Your task to perform on an android device: Show me recent news Image 0: 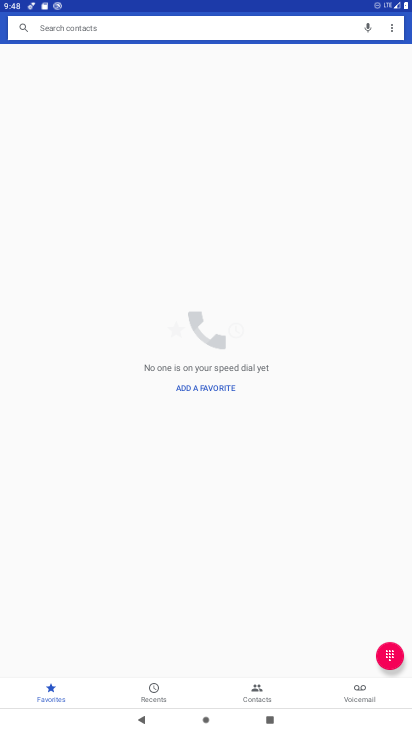
Step 0: press home button
Your task to perform on an android device: Show me recent news Image 1: 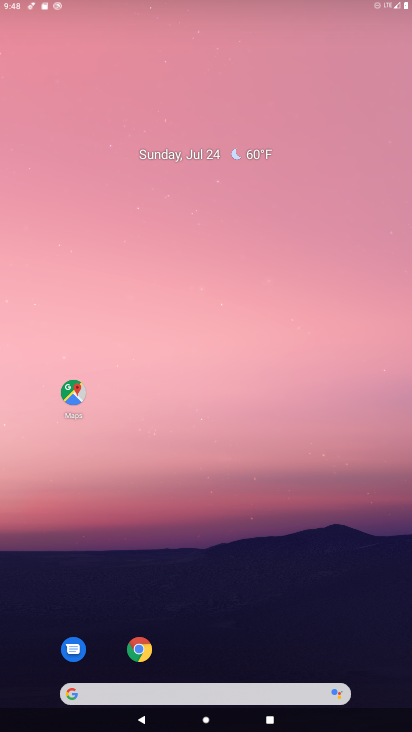
Step 1: drag from (259, 612) to (234, 68)
Your task to perform on an android device: Show me recent news Image 2: 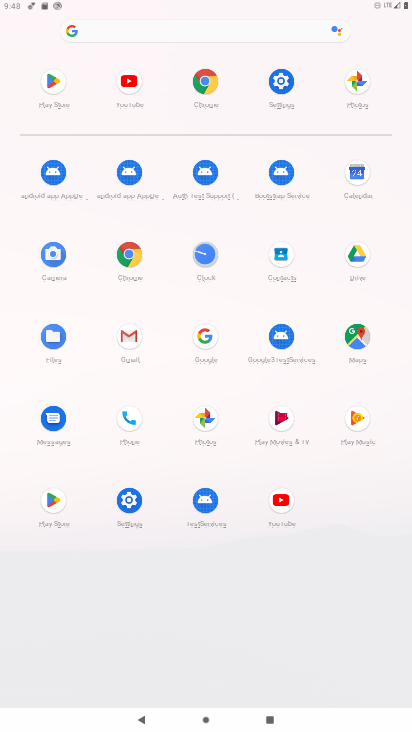
Step 2: click (127, 252)
Your task to perform on an android device: Show me recent news Image 3: 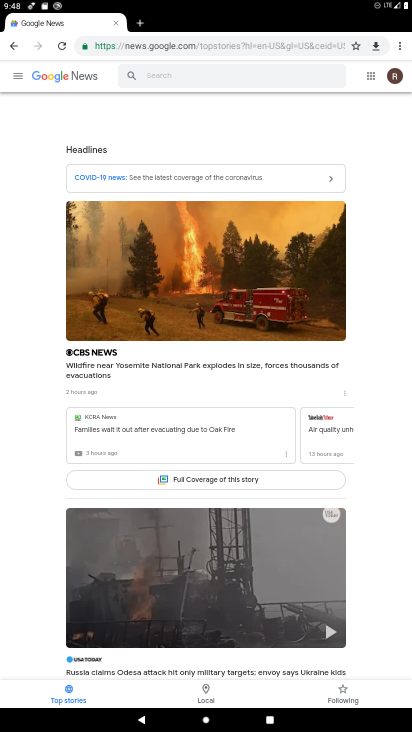
Step 3: click (271, 44)
Your task to perform on an android device: Show me recent news Image 4: 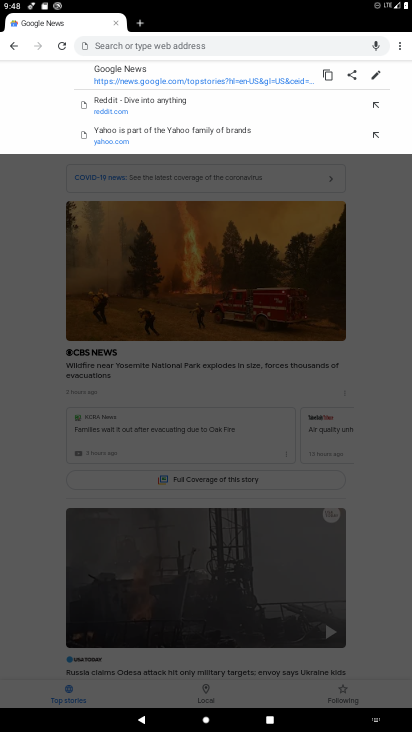
Step 4: click (63, 317)
Your task to perform on an android device: Show me recent news Image 5: 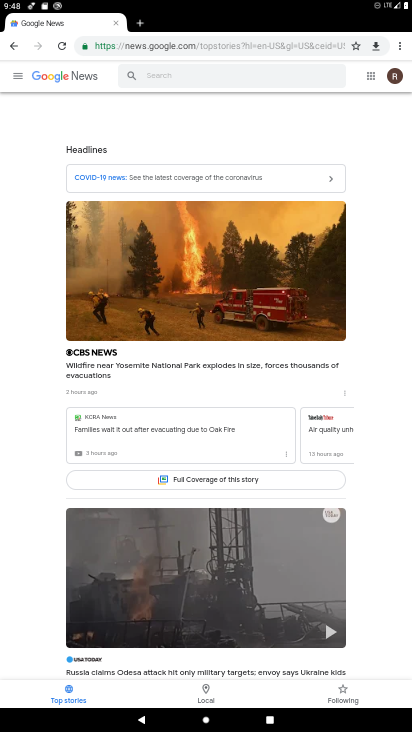
Step 5: task complete